Your task to perform on an android device: Open Google Maps and go to "Timeline" Image 0: 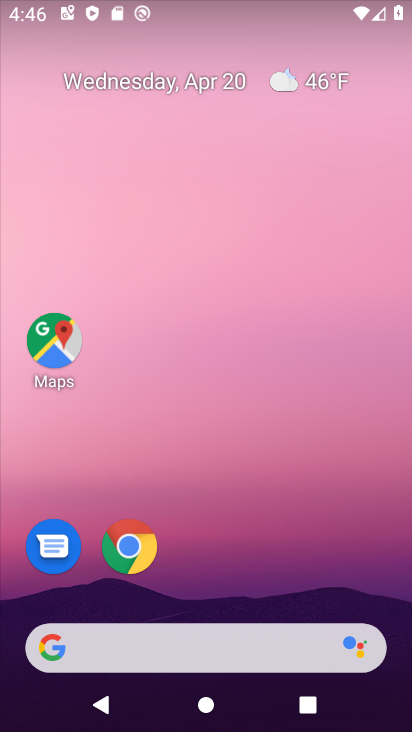
Step 0: drag from (293, 543) to (334, 64)
Your task to perform on an android device: Open Google Maps and go to "Timeline" Image 1: 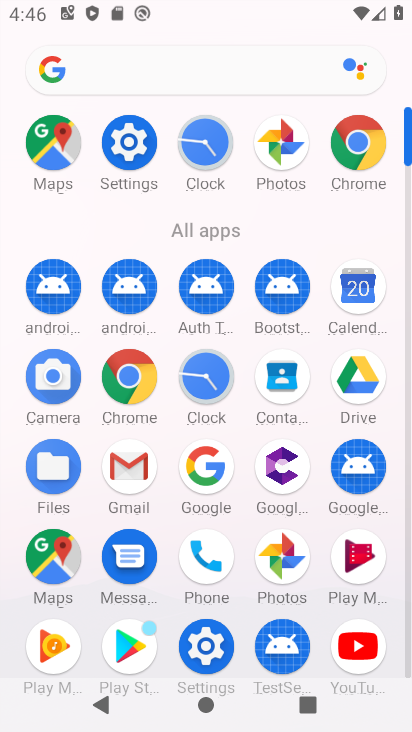
Step 1: click (46, 146)
Your task to perform on an android device: Open Google Maps and go to "Timeline" Image 2: 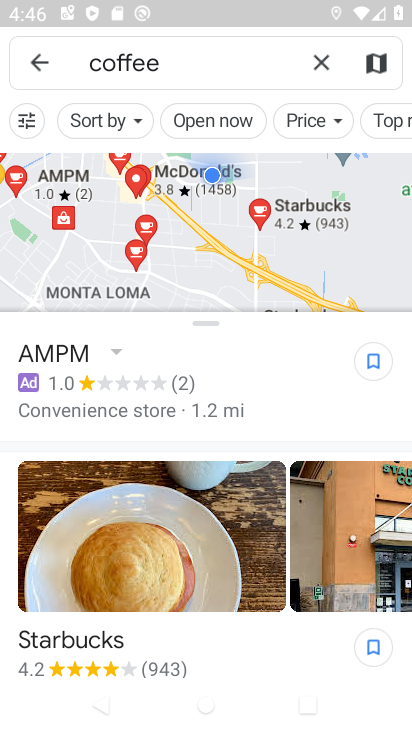
Step 2: click (40, 75)
Your task to perform on an android device: Open Google Maps and go to "Timeline" Image 3: 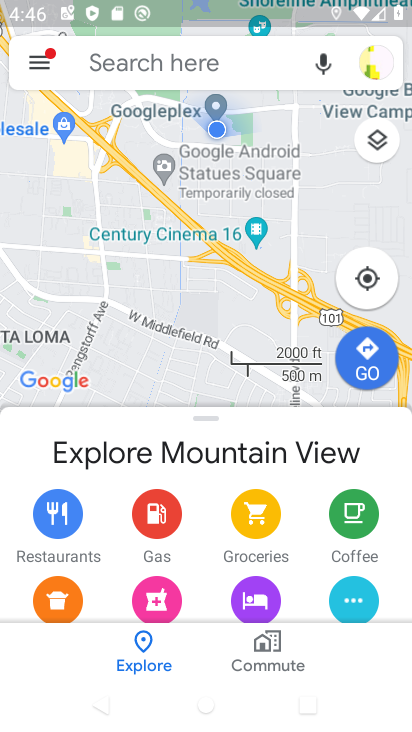
Step 3: click (51, 58)
Your task to perform on an android device: Open Google Maps and go to "Timeline" Image 4: 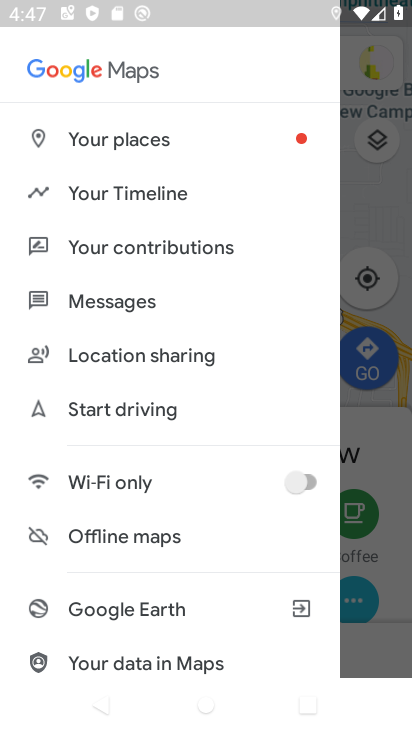
Step 4: click (122, 198)
Your task to perform on an android device: Open Google Maps and go to "Timeline" Image 5: 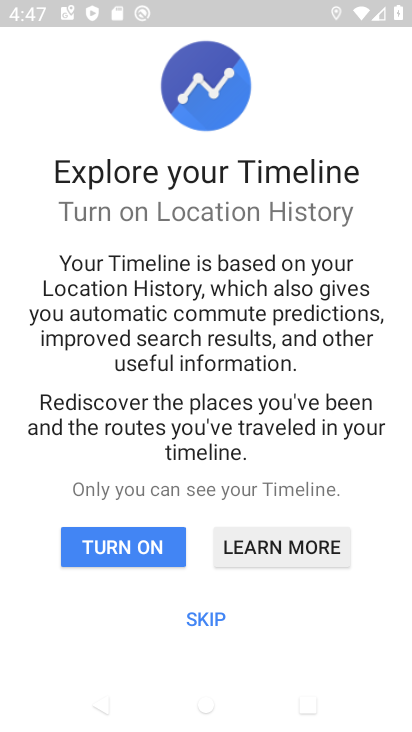
Step 5: task complete